Your task to perform on an android device: Show the shopping cart on walmart.com. Search for "razer blade" on walmart.com, select the first entry, add it to the cart, then select checkout. Image 0: 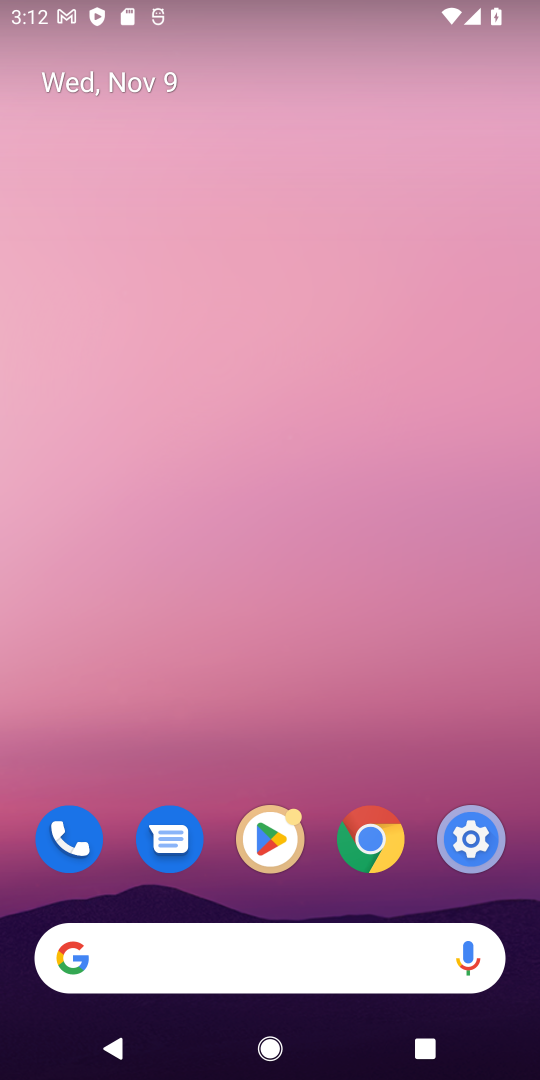
Step 0: click (217, 987)
Your task to perform on an android device: Show the shopping cart on walmart.com. Search for "razer blade" on walmart.com, select the first entry, add it to the cart, then select checkout. Image 1: 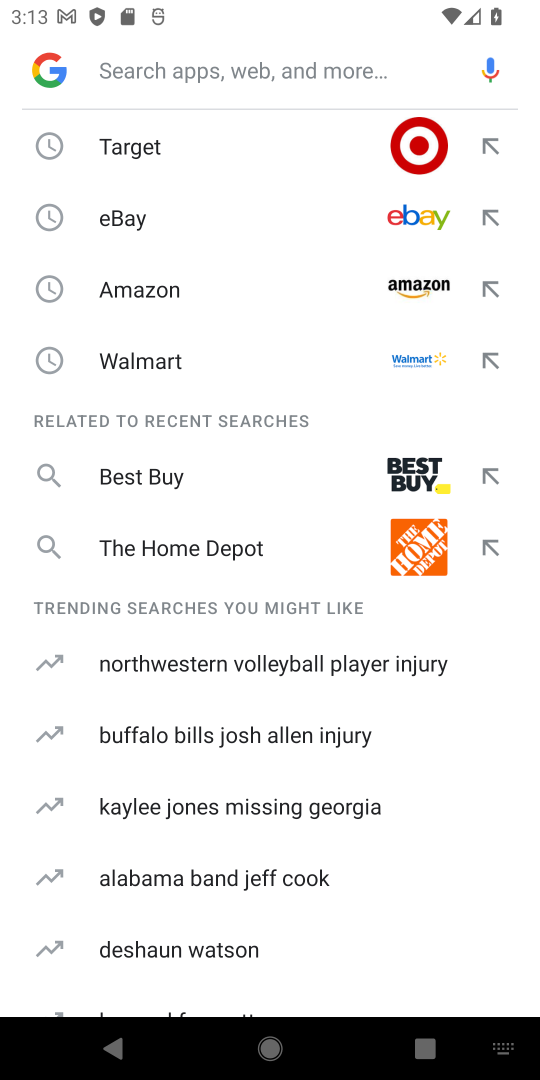
Step 1: click (182, 381)
Your task to perform on an android device: Show the shopping cart on walmart.com. Search for "razer blade" on walmart.com, select the first entry, add it to the cart, then select checkout. Image 2: 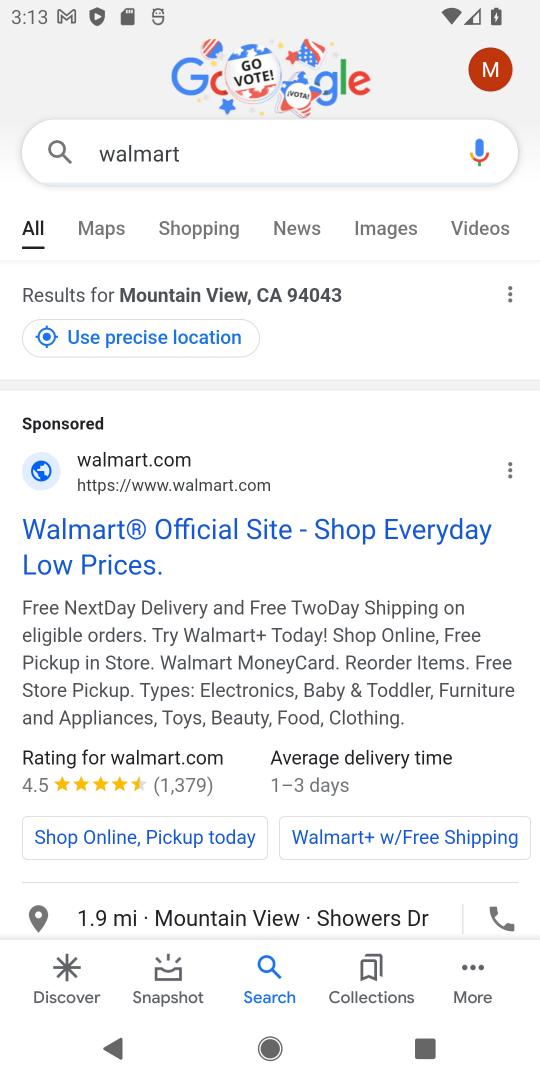
Step 2: click (169, 552)
Your task to perform on an android device: Show the shopping cart on walmart.com. Search for "razer blade" on walmart.com, select the first entry, add it to the cart, then select checkout. Image 3: 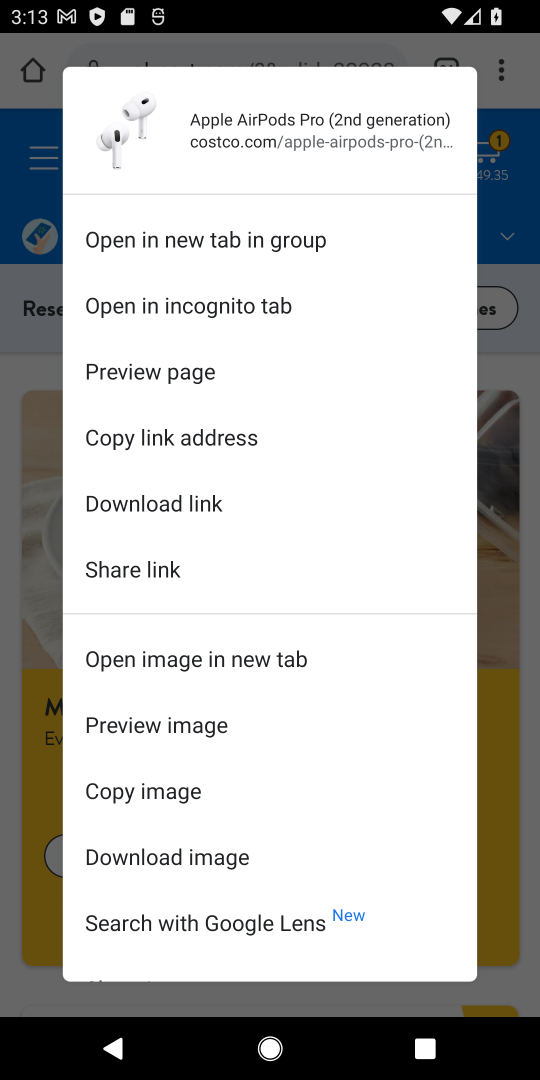
Step 3: press home button
Your task to perform on an android device: Show the shopping cart on walmart.com. Search for "razer blade" on walmart.com, select the first entry, add it to the cart, then select checkout. Image 4: 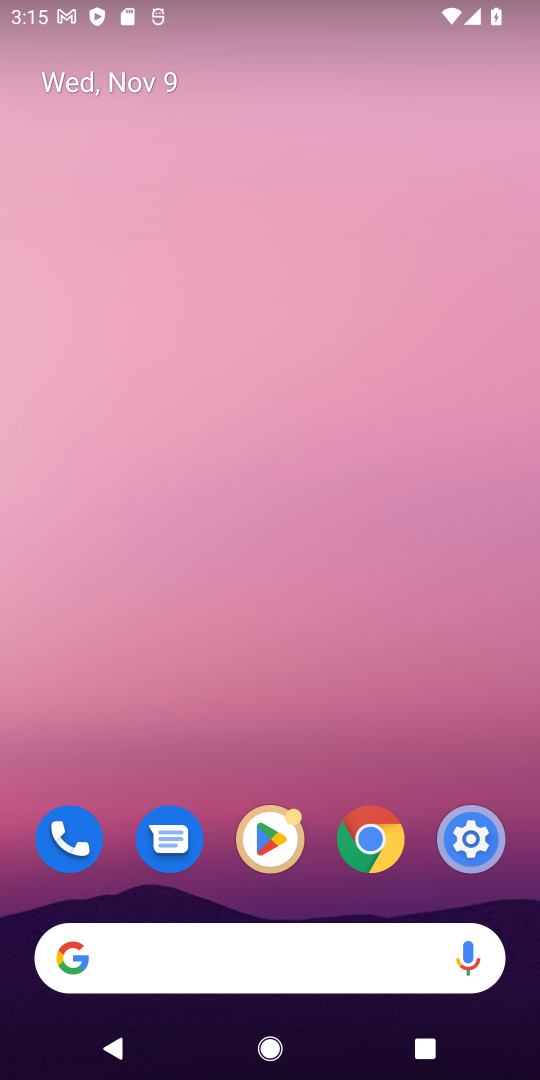
Step 4: click (266, 960)
Your task to perform on an android device: Show the shopping cart on walmart.com. Search for "razer blade" on walmart.com, select the first entry, add it to the cart, then select checkout. Image 5: 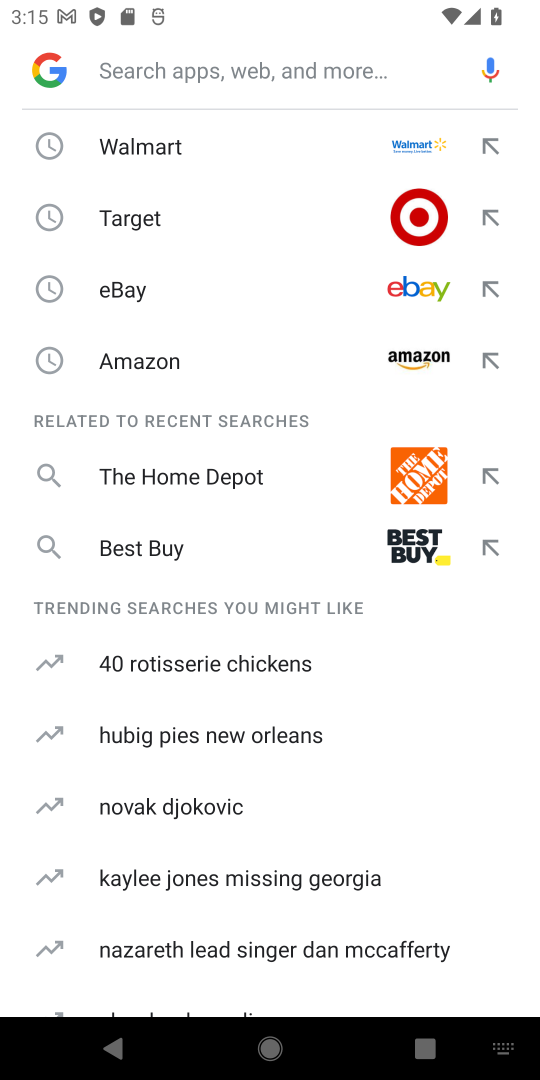
Step 5: click (199, 164)
Your task to perform on an android device: Show the shopping cart on walmart.com. Search for "razer blade" on walmart.com, select the first entry, add it to the cart, then select checkout. Image 6: 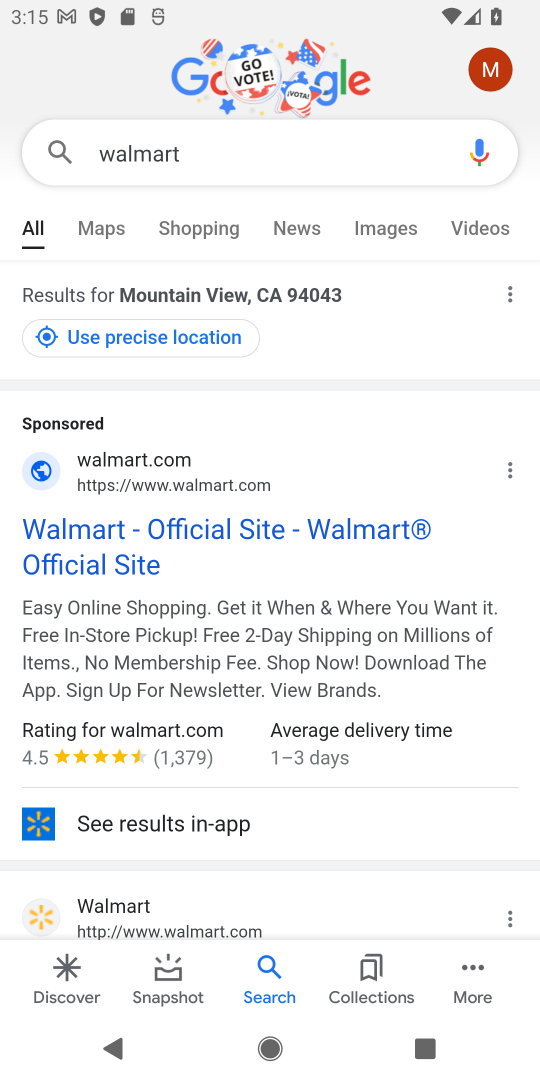
Step 6: click (111, 546)
Your task to perform on an android device: Show the shopping cart on walmart.com. Search for "razer blade" on walmart.com, select the first entry, add it to the cart, then select checkout. Image 7: 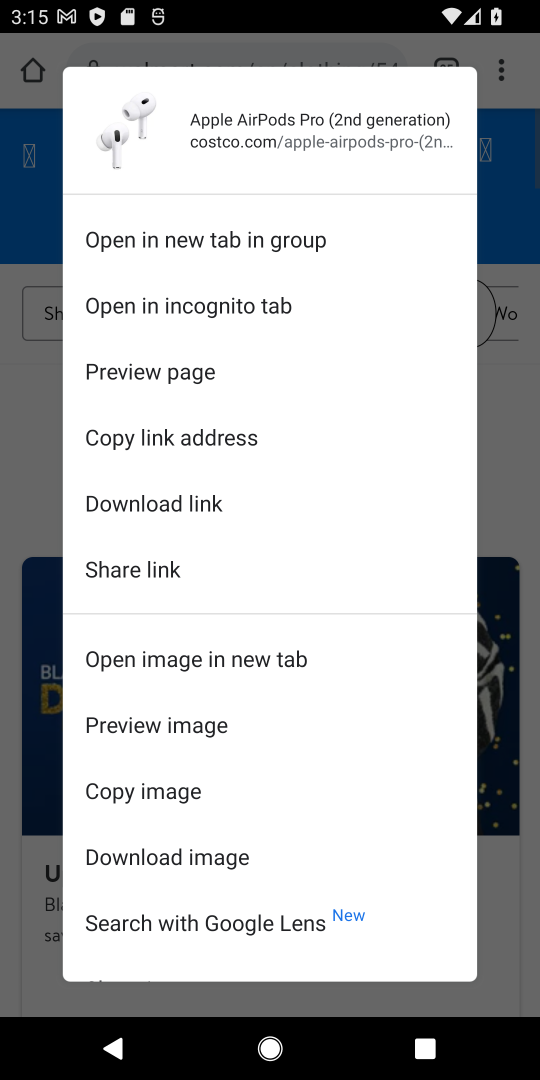
Step 7: click (15, 610)
Your task to perform on an android device: Show the shopping cart on walmart.com. Search for "razer blade" on walmart.com, select the first entry, add it to the cart, then select checkout. Image 8: 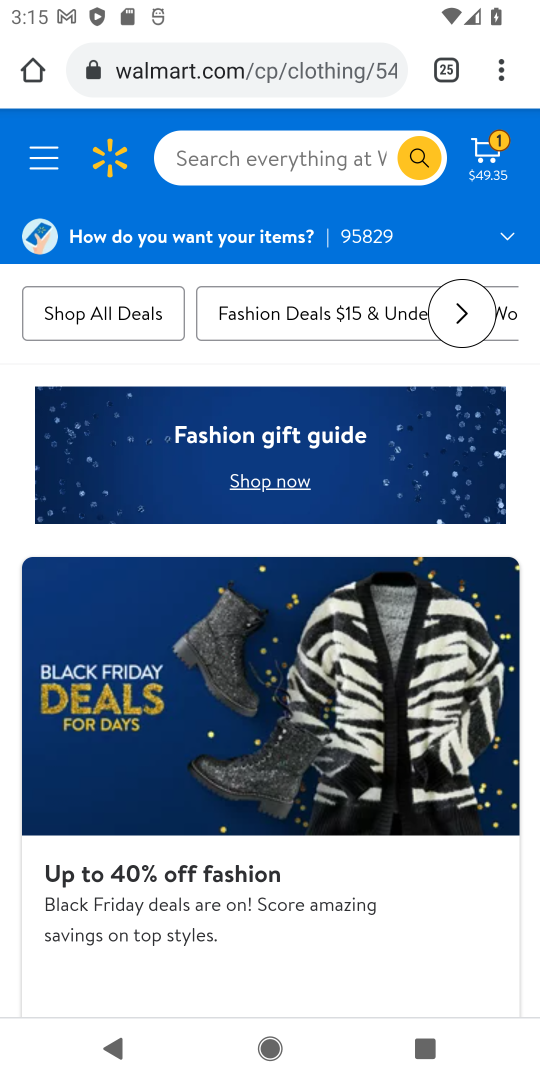
Step 8: click (218, 166)
Your task to perform on an android device: Show the shopping cart on walmart.com. Search for "razer blade" on walmart.com, select the first entry, add it to the cart, then select checkout. Image 9: 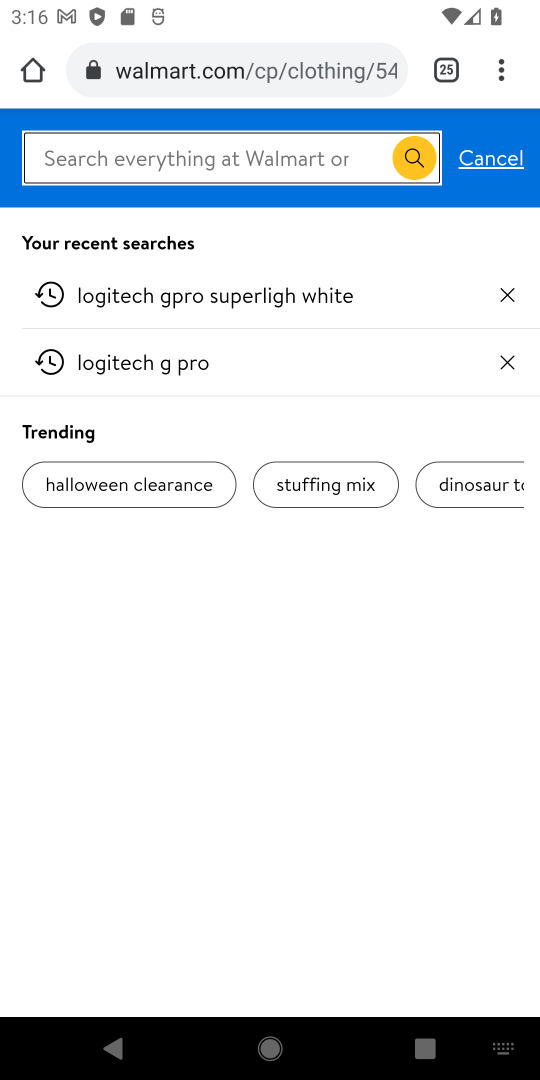
Step 9: type "razer blade"
Your task to perform on an android device: Show the shopping cart on walmart.com. Search for "razer blade" on walmart.com, select the first entry, add it to the cart, then select checkout. Image 10: 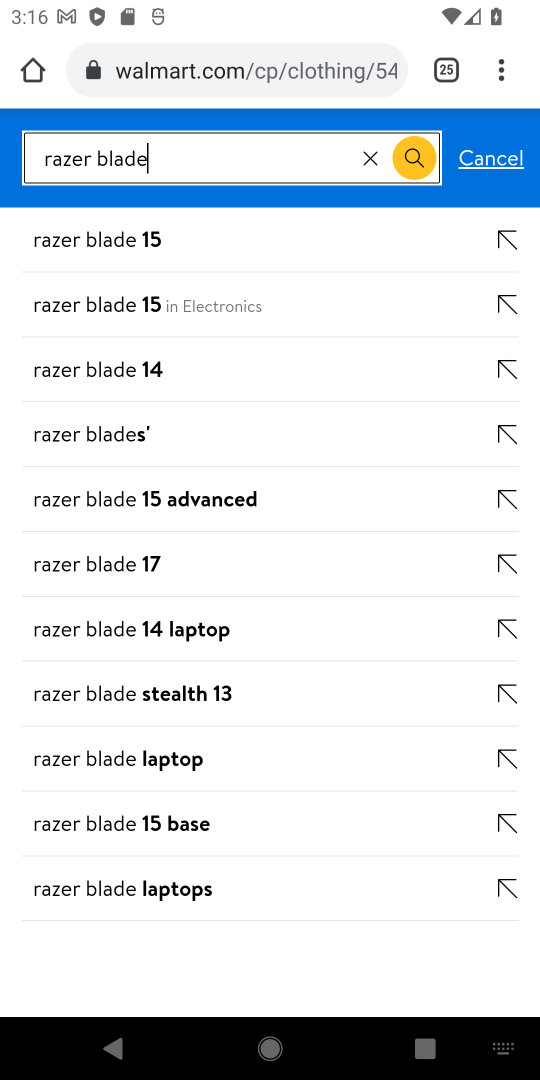
Step 10: click (175, 222)
Your task to perform on an android device: Show the shopping cart on walmart.com. Search for "razer blade" on walmart.com, select the first entry, add it to the cart, then select checkout. Image 11: 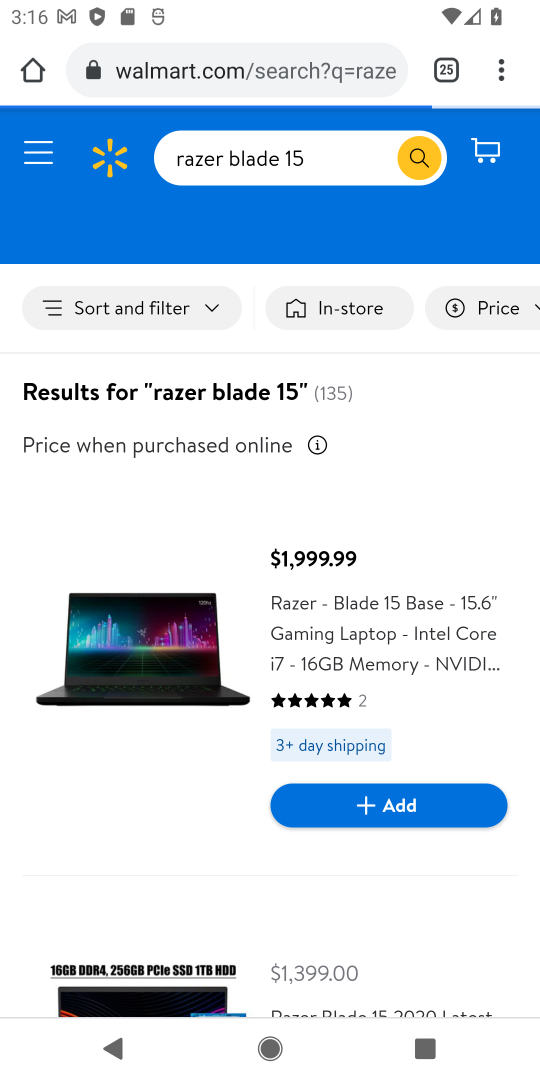
Step 11: click (423, 151)
Your task to perform on an android device: Show the shopping cart on walmart.com. Search for "razer blade" on walmart.com, select the first entry, add it to the cart, then select checkout. Image 12: 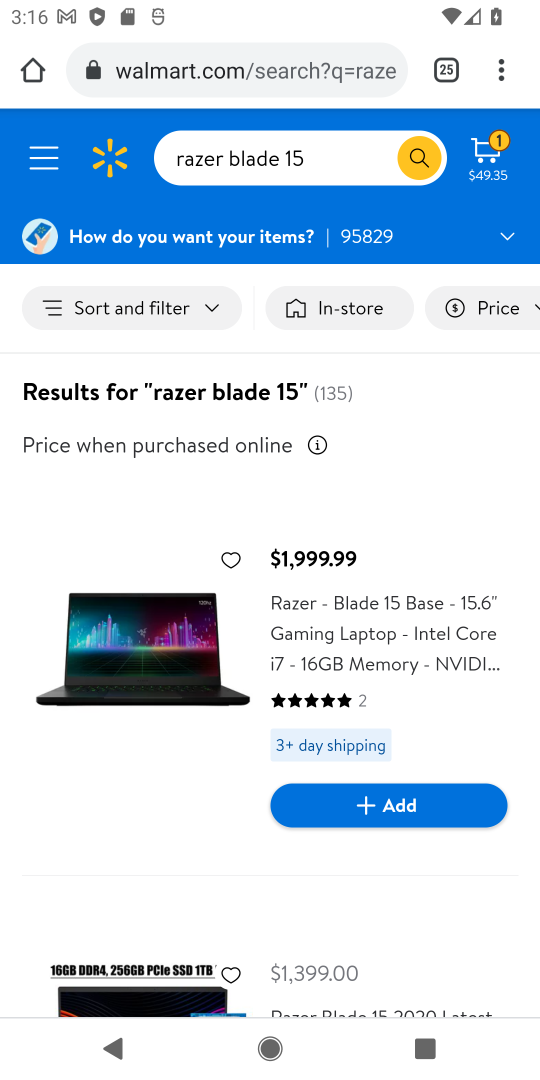
Step 12: click (350, 807)
Your task to perform on an android device: Show the shopping cart on walmart.com. Search for "razer blade" on walmart.com, select the first entry, add it to the cart, then select checkout. Image 13: 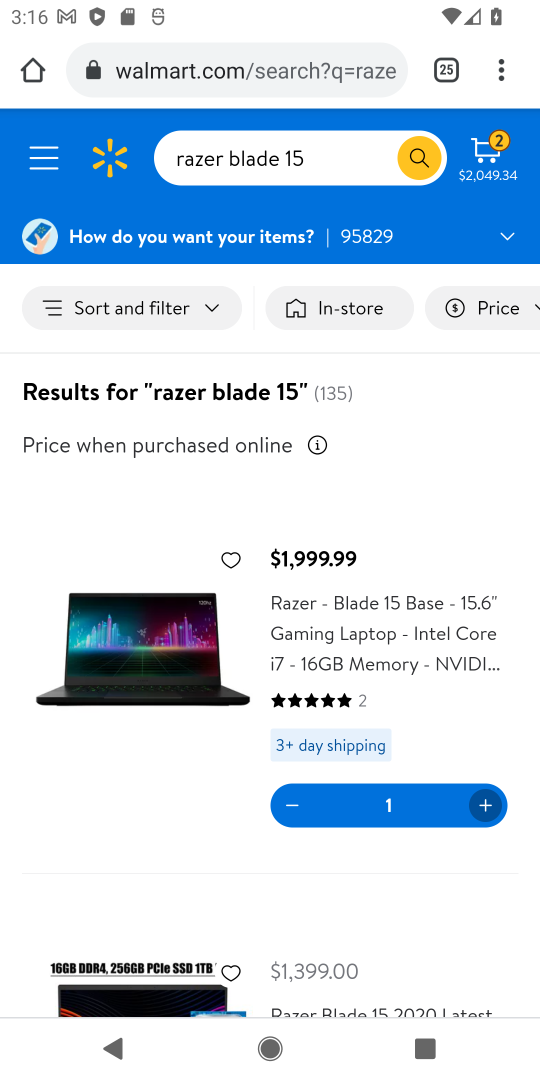
Step 13: task complete